Your task to perform on an android device: change the clock display to digital Image 0: 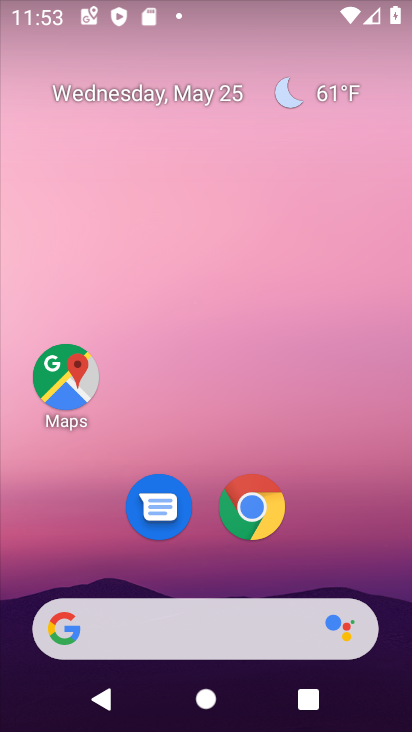
Step 0: drag from (355, 571) to (332, 191)
Your task to perform on an android device: change the clock display to digital Image 1: 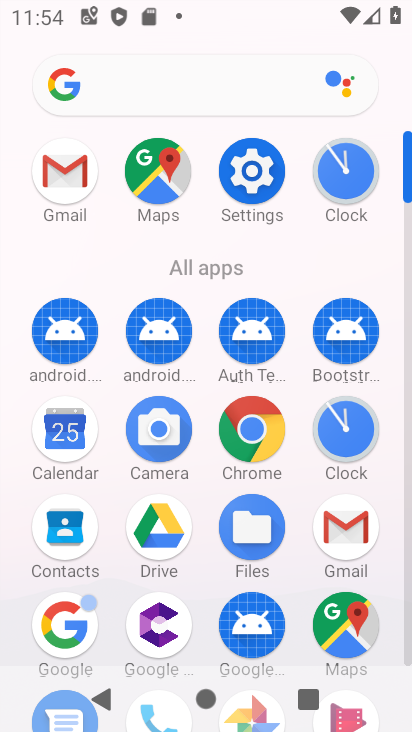
Step 1: click (335, 202)
Your task to perform on an android device: change the clock display to digital Image 2: 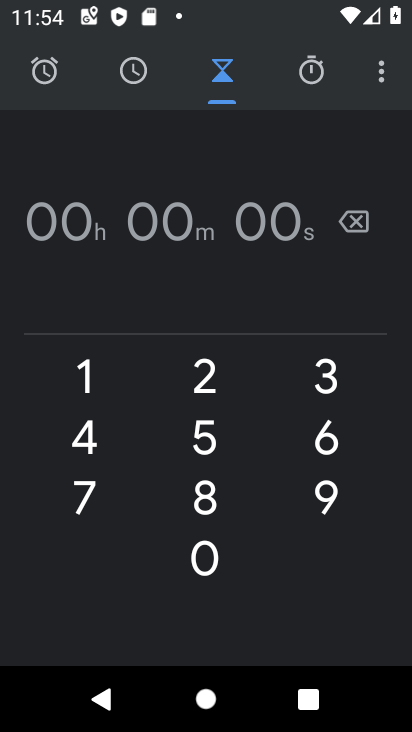
Step 2: task complete